Your task to perform on an android device: turn on location history Image 0: 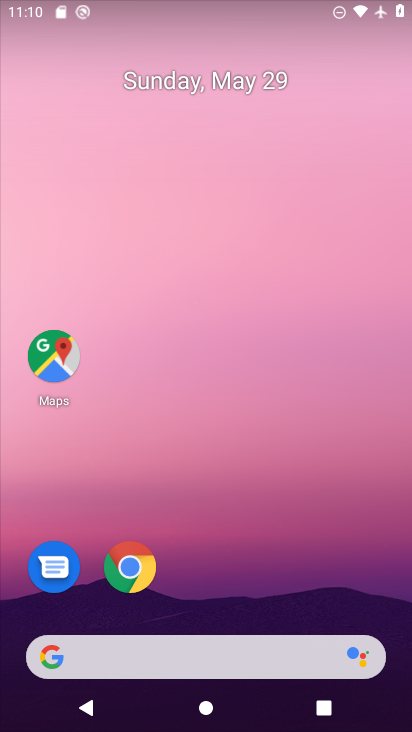
Step 0: click (52, 351)
Your task to perform on an android device: turn on location history Image 1: 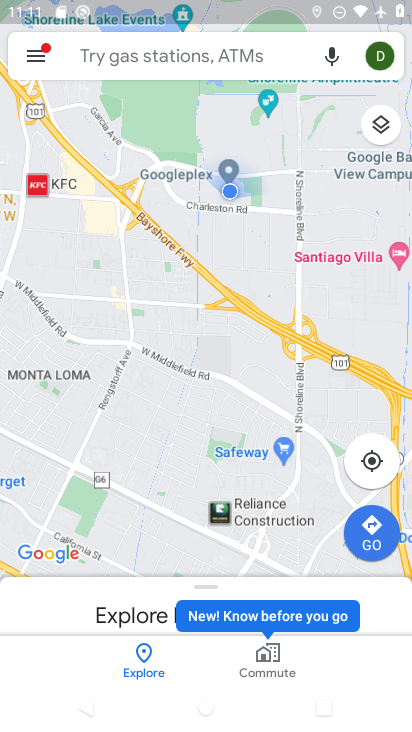
Step 1: click (36, 57)
Your task to perform on an android device: turn on location history Image 2: 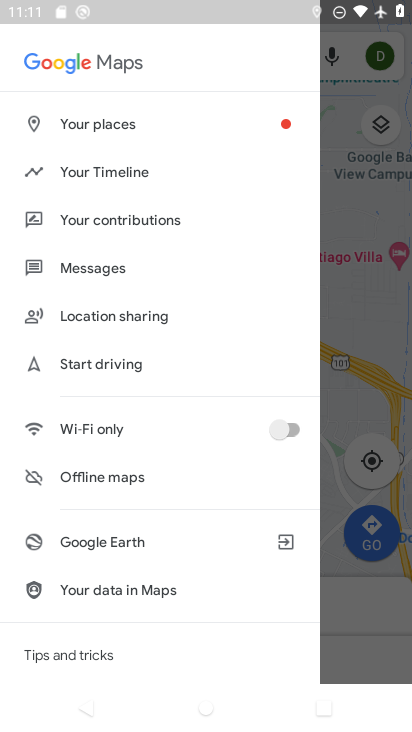
Step 2: drag from (206, 616) to (200, 91)
Your task to perform on an android device: turn on location history Image 3: 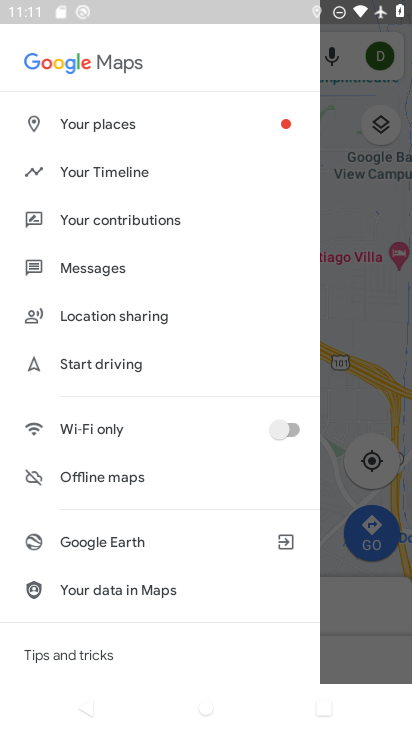
Step 3: drag from (186, 598) to (238, 89)
Your task to perform on an android device: turn on location history Image 4: 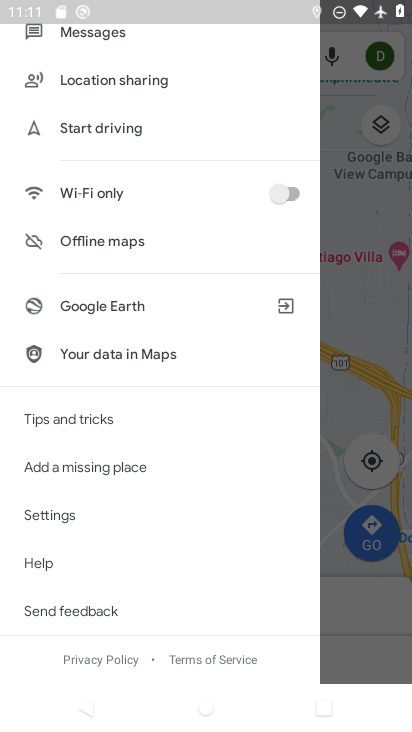
Step 4: click (53, 520)
Your task to perform on an android device: turn on location history Image 5: 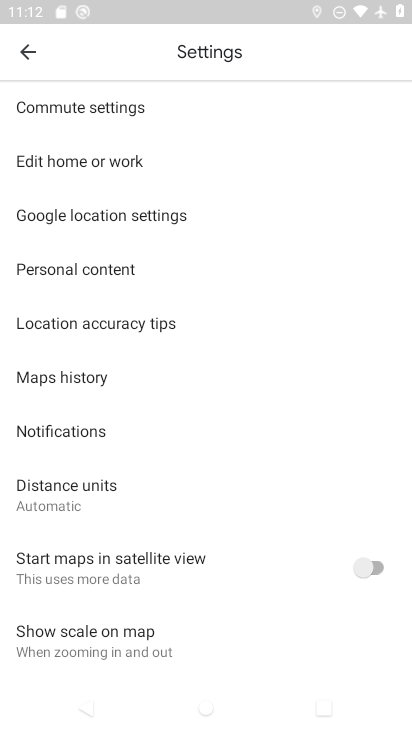
Step 5: click (111, 263)
Your task to perform on an android device: turn on location history Image 6: 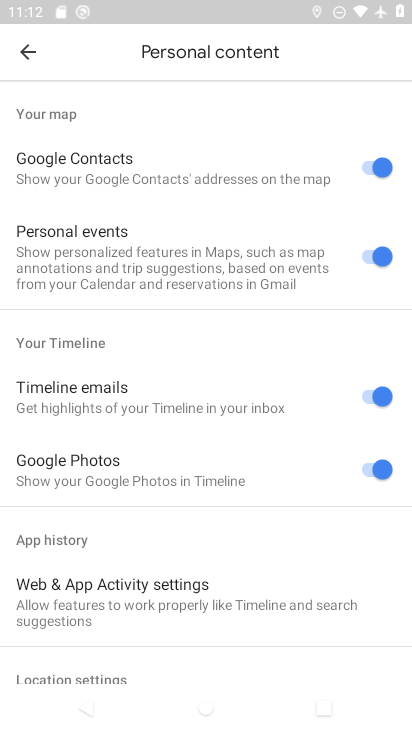
Step 6: drag from (141, 503) to (130, 86)
Your task to perform on an android device: turn on location history Image 7: 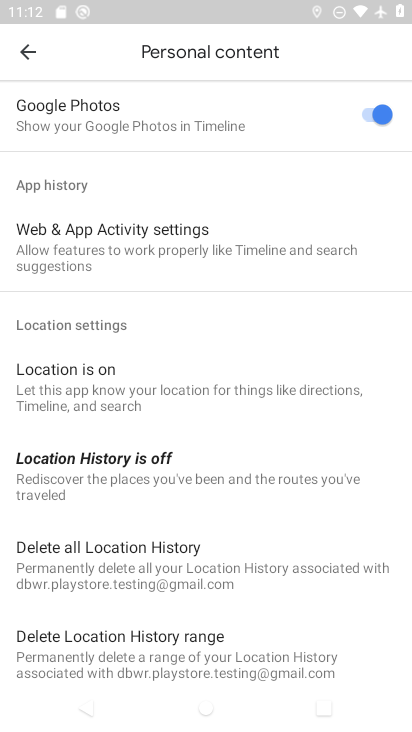
Step 7: click (89, 469)
Your task to perform on an android device: turn on location history Image 8: 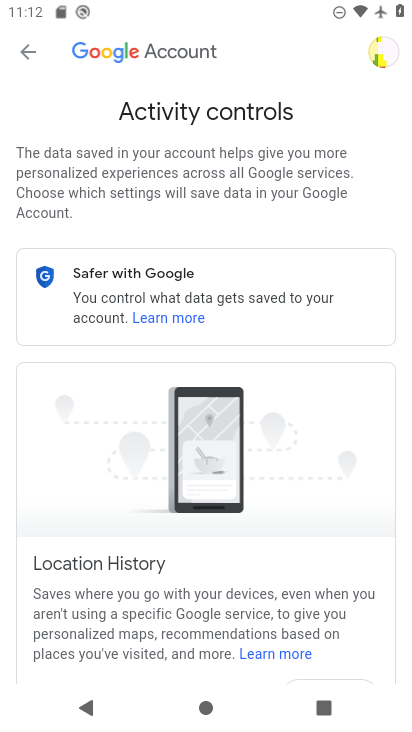
Step 8: drag from (281, 610) to (253, 127)
Your task to perform on an android device: turn on location history Image 9: 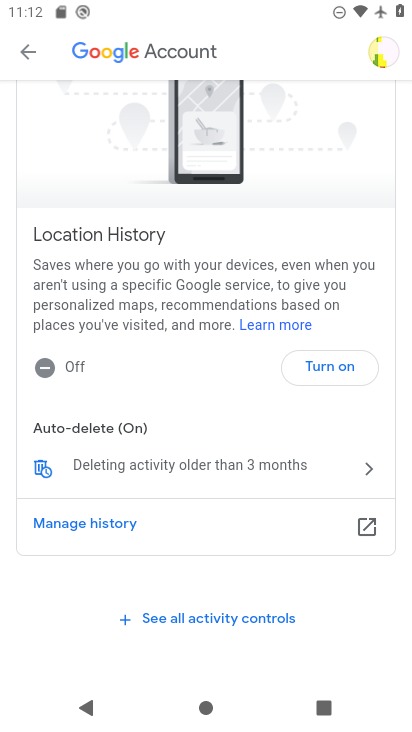
Step 9: click (330, 365)
Your task to perform on an android device: turn on location history Image 10: 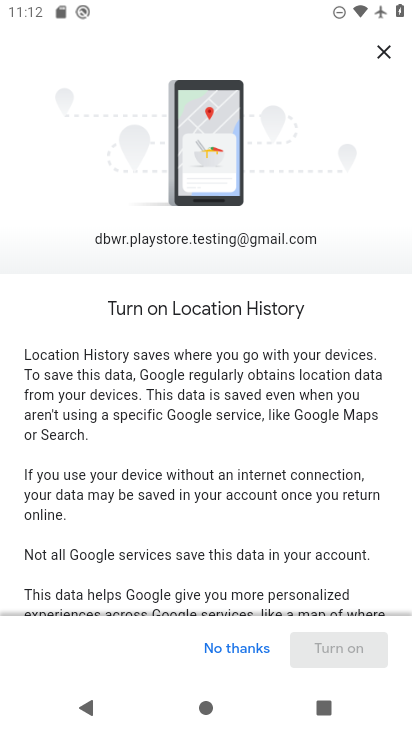
Step 10: drag from (351, 579) to (183, 46)
Your task to perform on an android device: turn on location history Image 11: 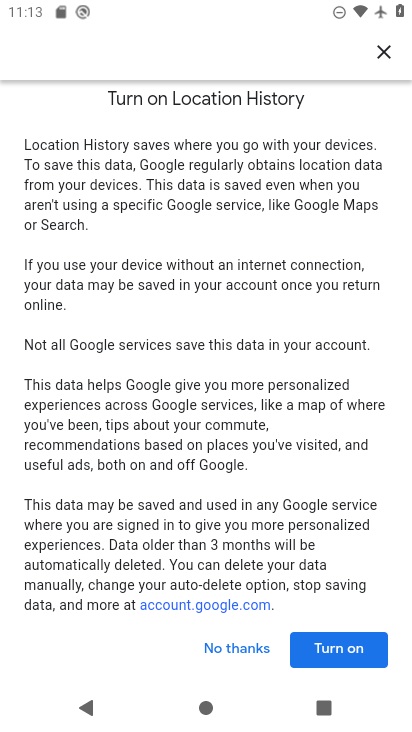
Step 11: click (333, 654)
Your task to perform on an android device: turn on location history Image 12: 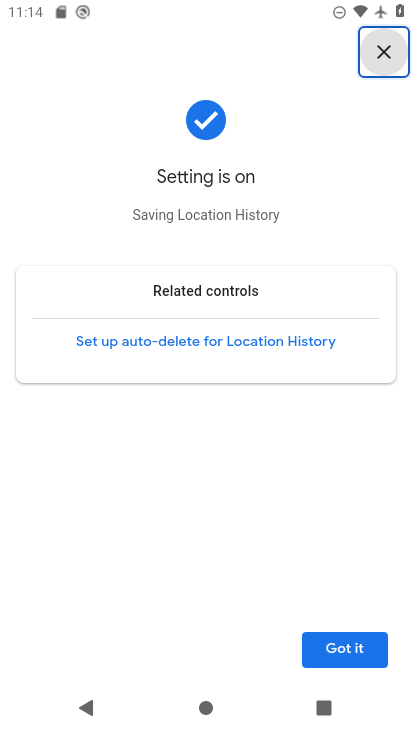
Step 12: click (347, 651)
Your task to perform on an android device: turn on location history Image 13: 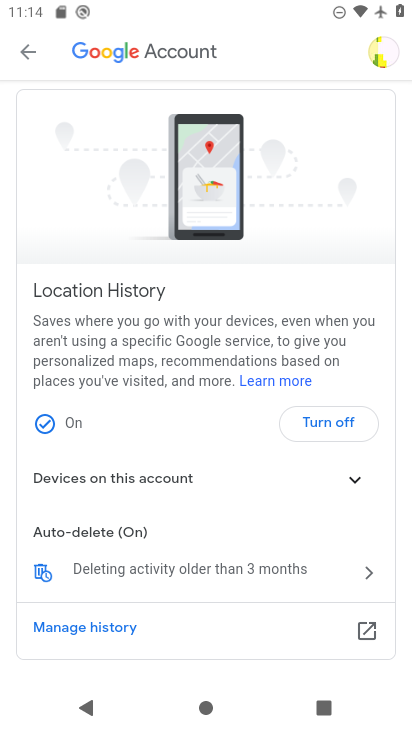
Step 13: task complete